Your task to perform on an android device: set an alarm Image 0: 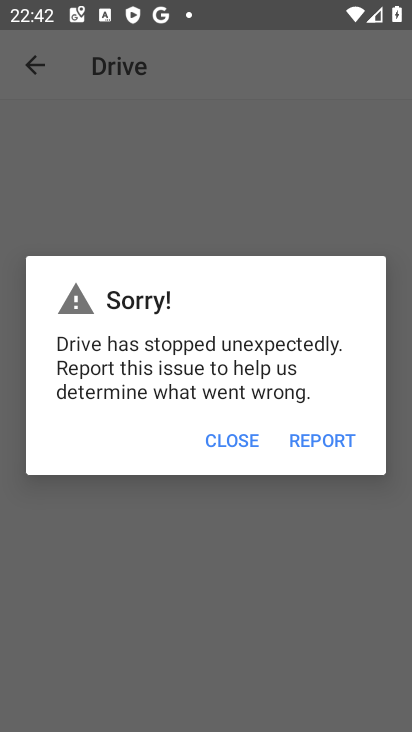
Step 0: press home button
Your task to perform on an android device: set an alarm Image 1: 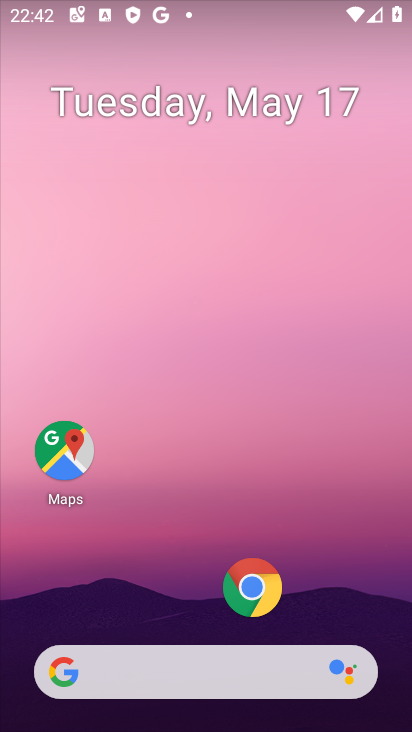
Step 1: drag from (153, 613) to (49, 77)
Your task to perform on an android device: set an alarm Image 2: 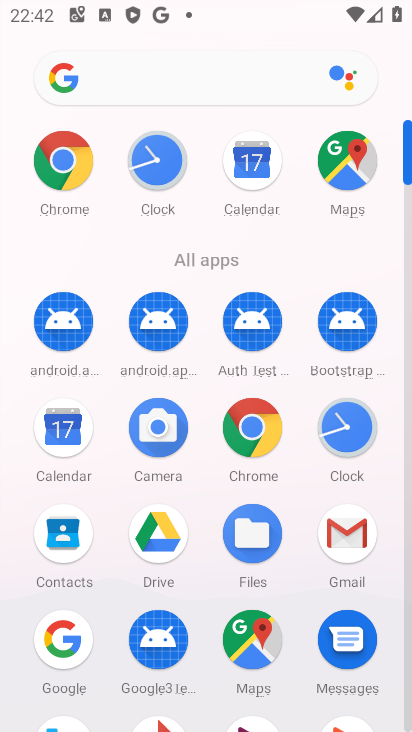
Step 2: click (367, 423)
Your task to perform on an android device: set an alarm Image 3: 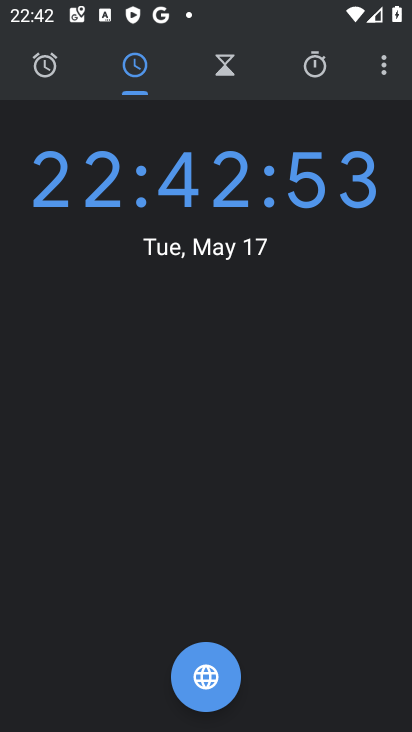
Step 3: click (41, 82)
Your task to perform on an android device: set an alarm Image 4: 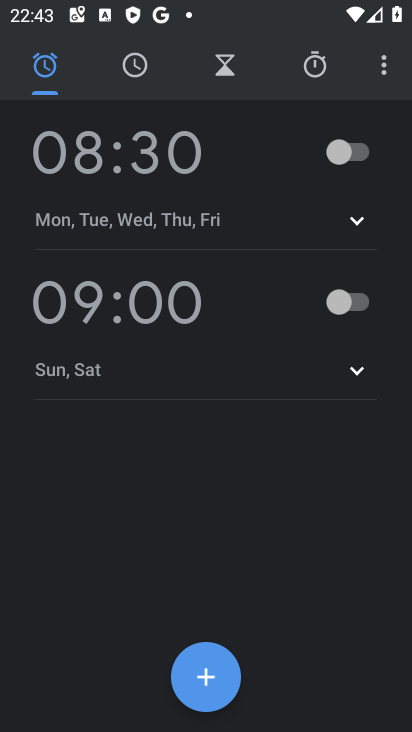
Step 4: click (224, 699)
Your task to perform on an android device: set an alarm Image 5: 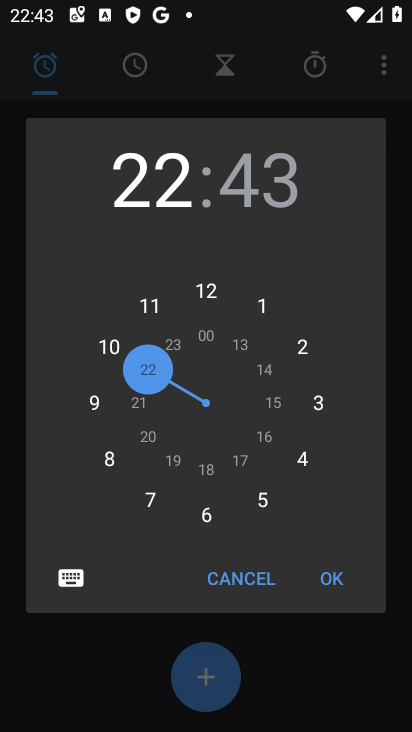
Step 5: click (344, 587)
Your task to perform on an android device: set an alarm Image 6: 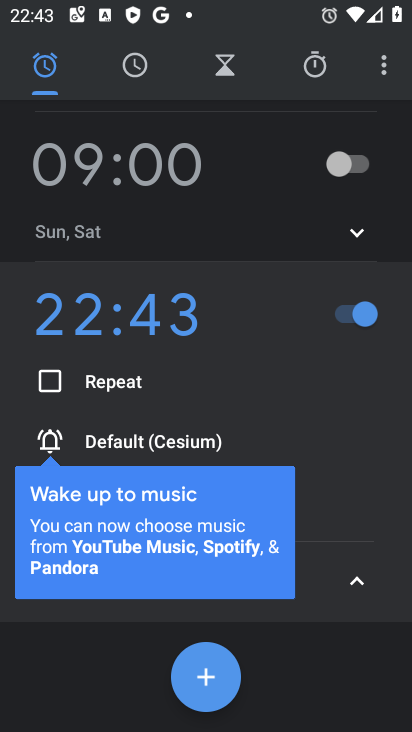
Step 6: task complete